Your task to perform on an android device: Open notification settings Image 0: 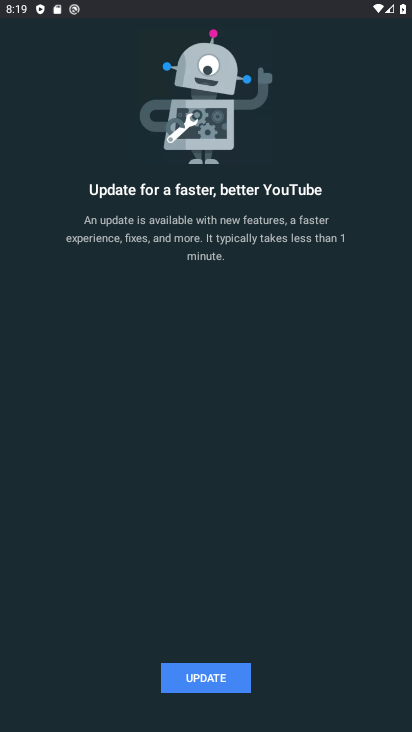
Step 0: task complete